Your task to perform on an android device: Search for vegetarian restaurants on Maps Image 0: 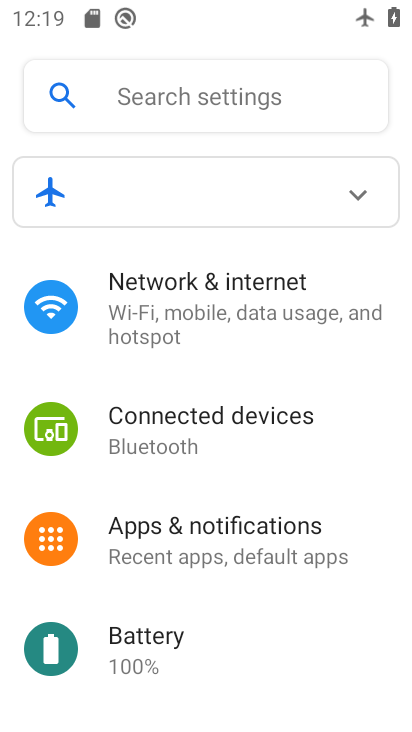
Step 0: press home button
Your task to perform on an android device: Search for vegetarian restaurants on Maps Image 1: 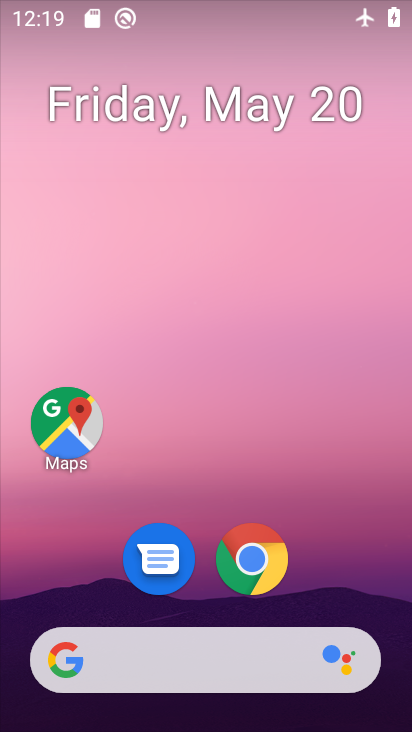
Step 1: drag from (327, 15) to (335, 436)
Your task to perform on an android device: Search for vegetarian restaurants on Maps Image 2: 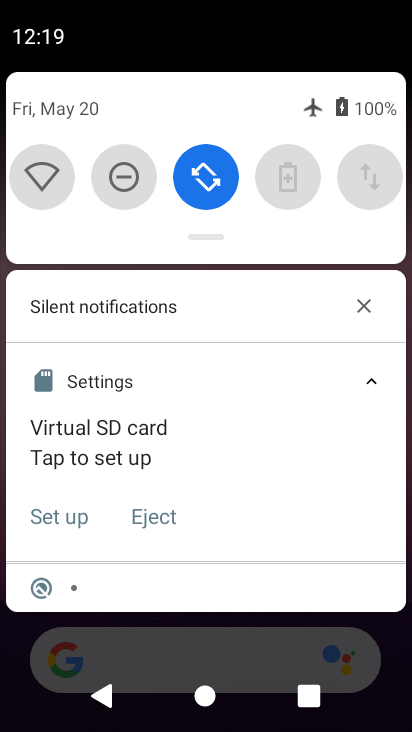
Step 2: drag from (245, 197) to (241, 547)
Your task to perform on an android device: Search for vegetarian restaurants on Maps Image 3: 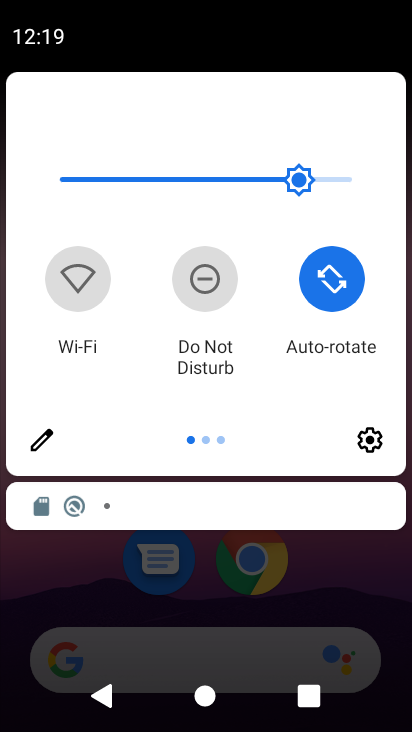
Step 3: click (29, 436)
Your task to perform on an android device: Search for vegetarian restaurants on Maps Image 4: 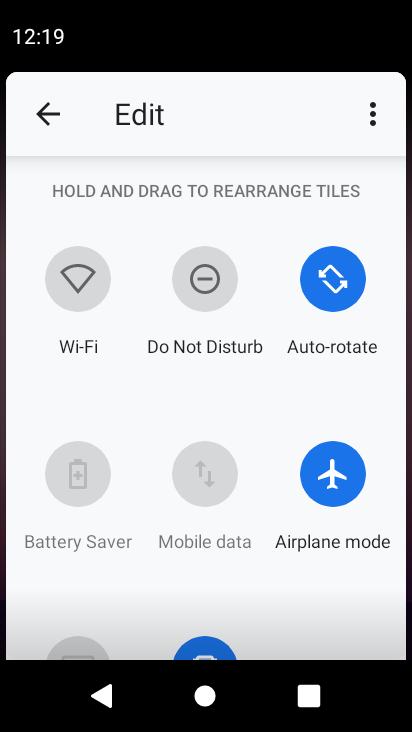
Step 4: click (328, 489)
Your task to perform on an android device: Search for vegetarian restaurants on Maps Image 5: 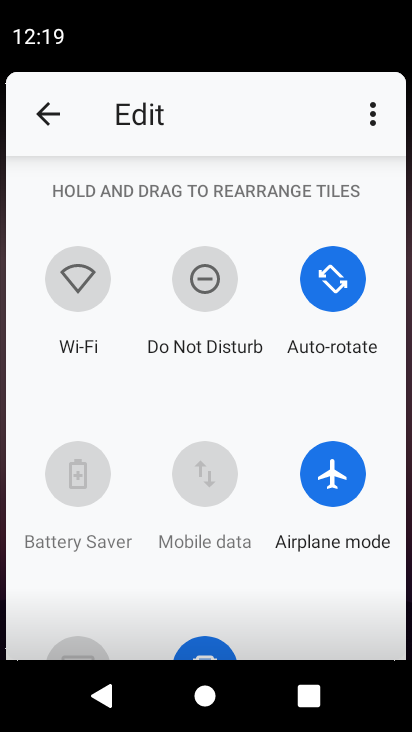
Step 5: click (328, 489)
Your task to perform on an android device: Search for vegetarian restaurants on Maps Image 6: 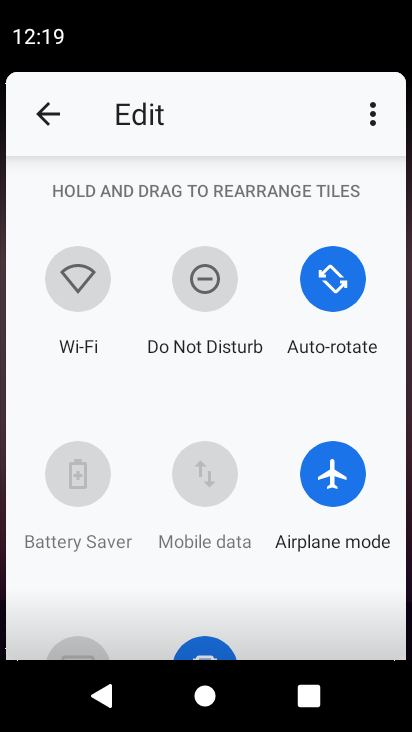
Step 6: click (39, 108)
Your task to perform on an android device: Search for vegetarian restaurants on Maps Image 7: 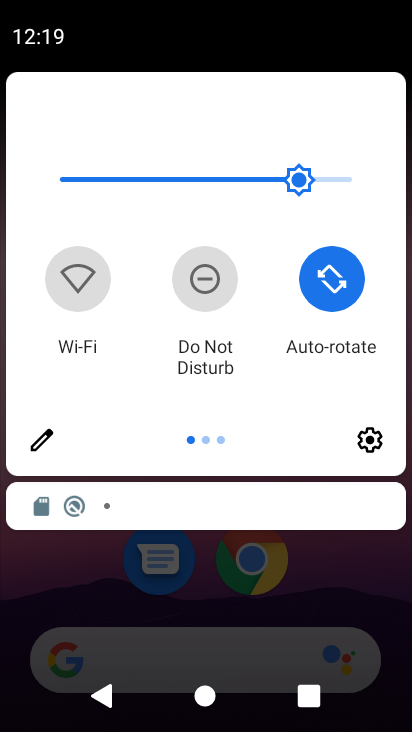
Step 7: drag from (393, 358) to (31, 323)
Your task to perform on an android device: Search for vegetarian restaurants on Maps Image 8: 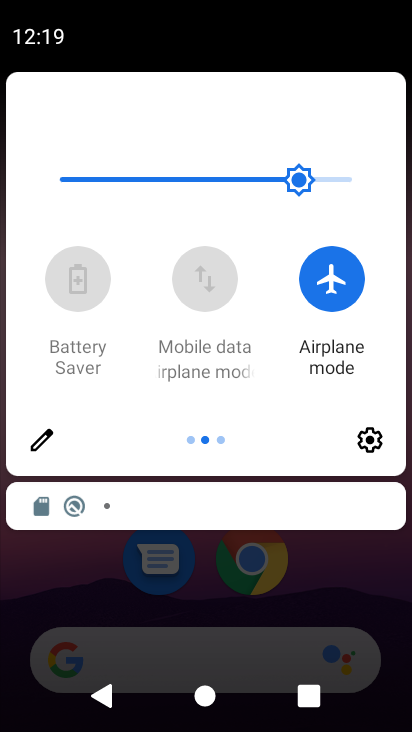
Step 8: click (351, 286)
Your task to perform on an android device: Search for vegetarian restaurants on Maps Image 9: 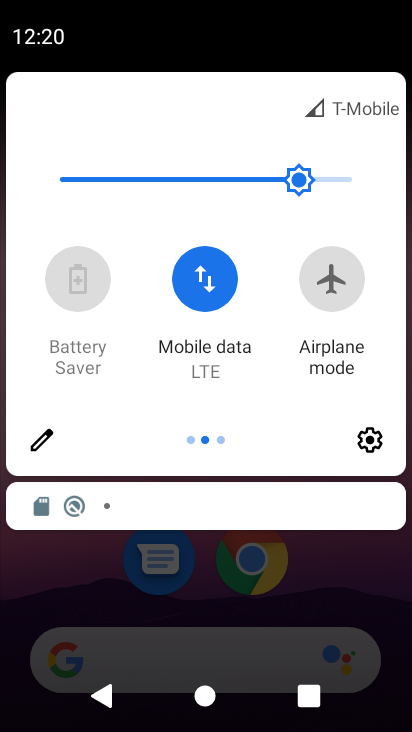
Step 9: press home button
Your task to perform on an android device: Search for vegetarian restaurants on Maps Image 10: 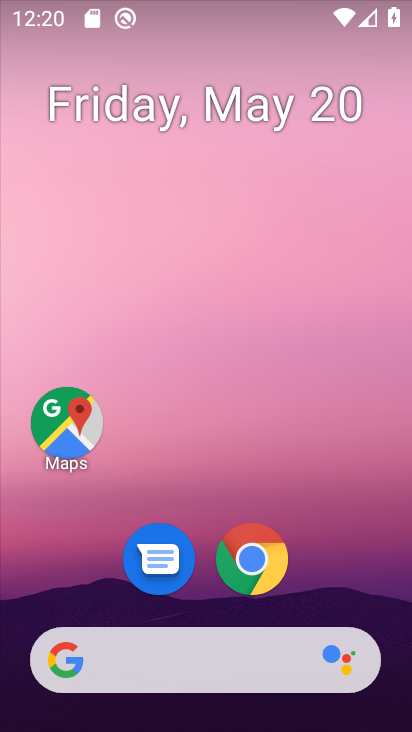
Step 10: drag from (326, 520) to (279, 150)
Your task to perform on an android device: Search for vegetarian restaurants on Maps Image 11: 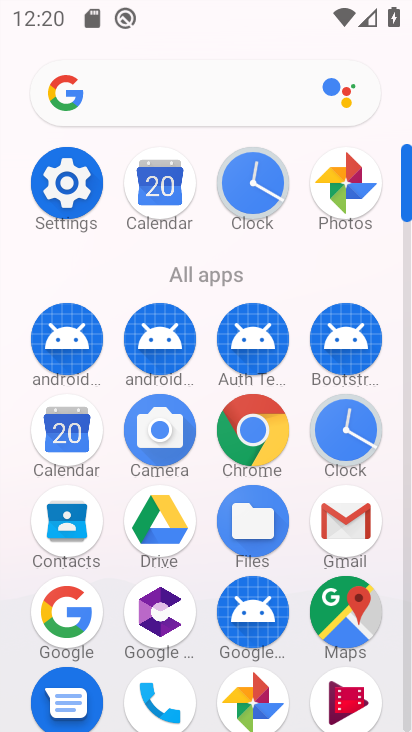
Step 11: click (343, 603)
Your task to perform on an android device: Search for vegetarian restaurants on Maps Image 12: 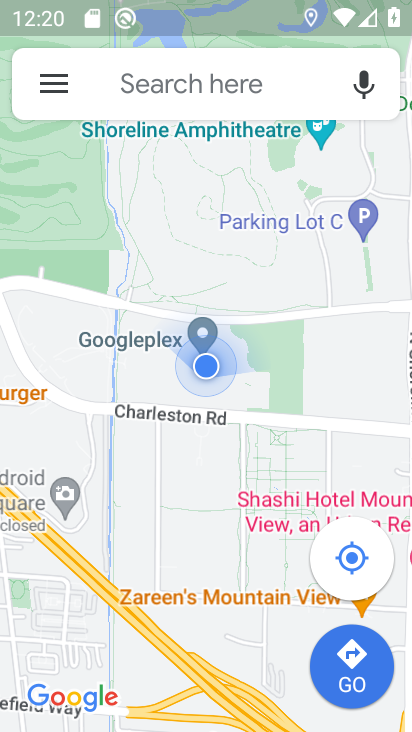
Step 12: click (205, 92)
Your task to perform on an android device: Search for vegetarian restaurants on Maps Image 13: 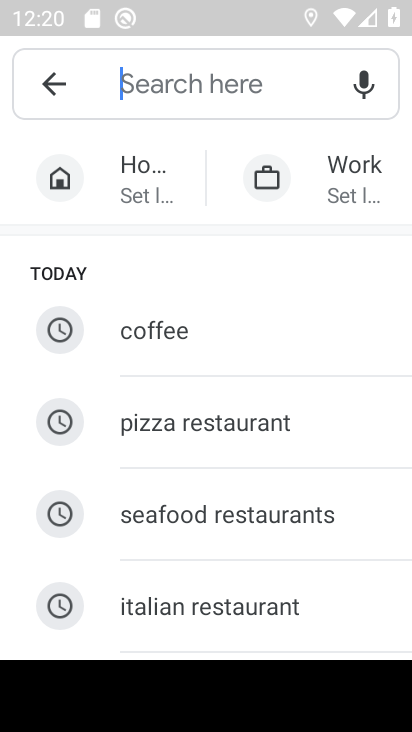
Step 13: type "vegetarian restaurants"
Your task to perform on an android device: Search for vegetarian restaurants on Maps Image 14: 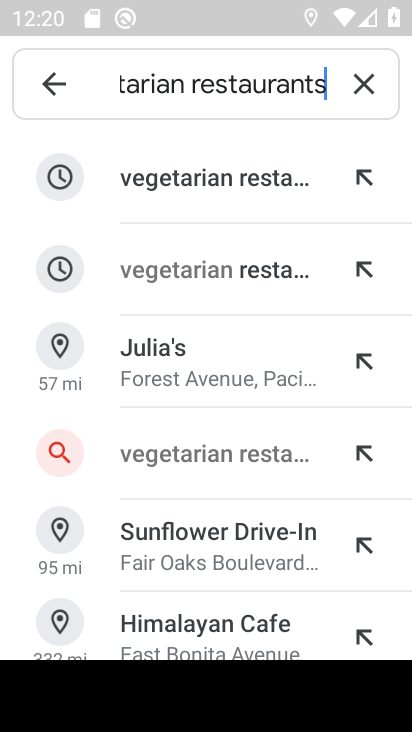
Step 14: click (207, 205)
Your task to perform on an android device: Search for vegetarian restaurants on Maps Image 15: 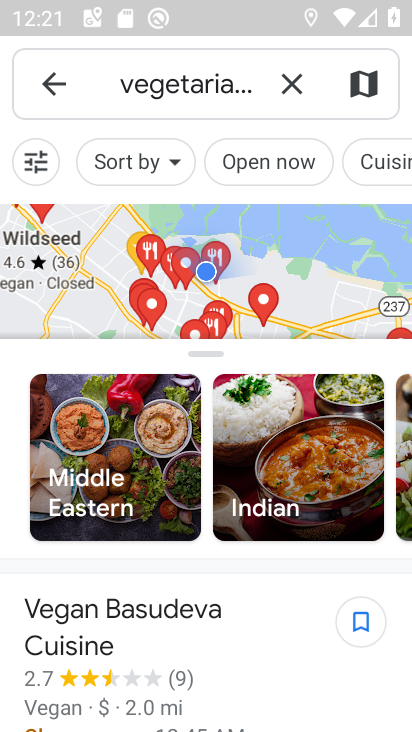
Step 15: task complete